Your task to perform on an android device: turn pop-ups off in chrome Image 0: 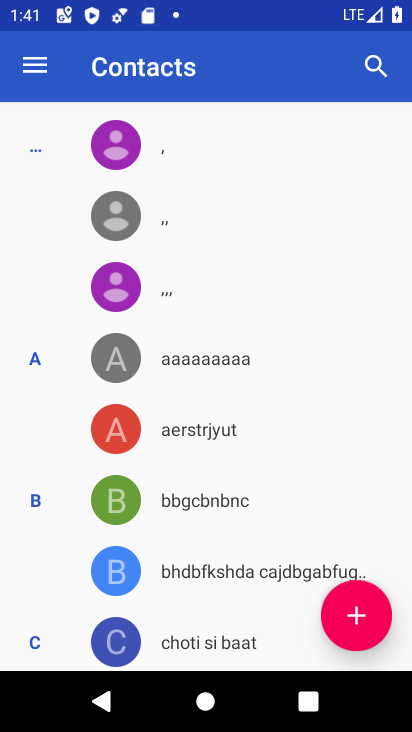
Step 0: press home button
Your task to perform on an android device: turn pop-ups off in chrome Image 1: 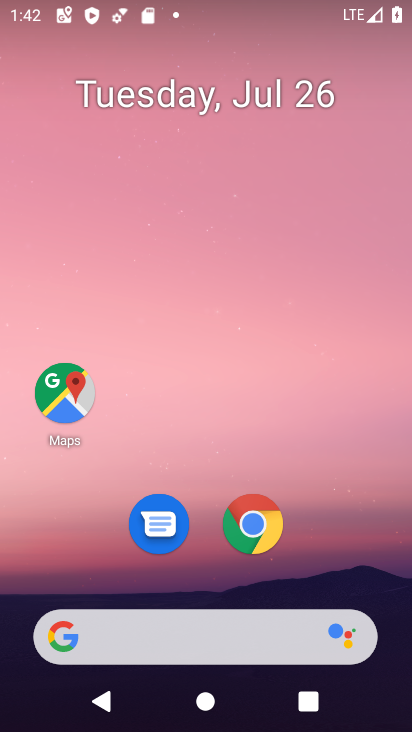
Step 1: click (264, 519)
Your task to perform on an android device: turn pop-ups off in chrome Image 2: 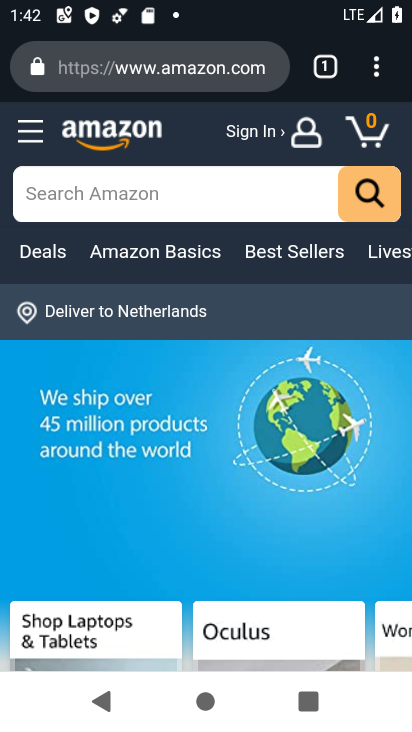
Step 2: click (378, 65)
Your task to perform on an android device: turn pop-ups off in chrome Image 3: 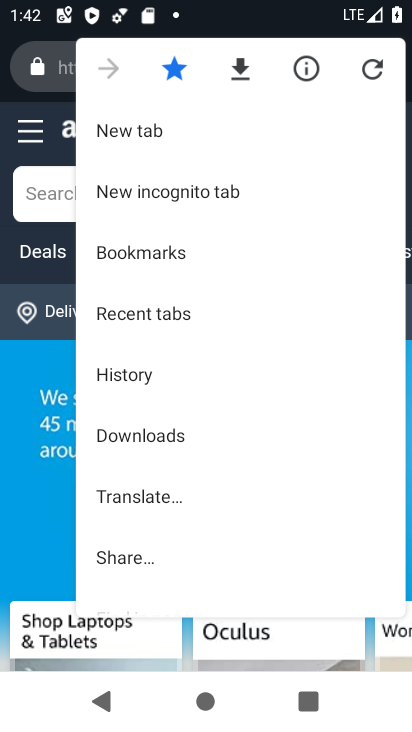
Step 3: drag from (228, 481) to (266, 104)
Your task to perform on an android device: turn pop-ups off in chrome Image 4: 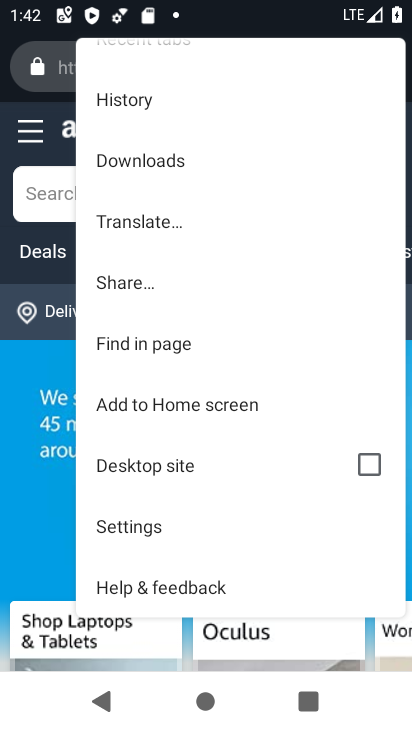
Step 4: drag from (205, 465) to (257, 258)
Your task to perform on an android device: turn pop-ups off in chrome Image 5: 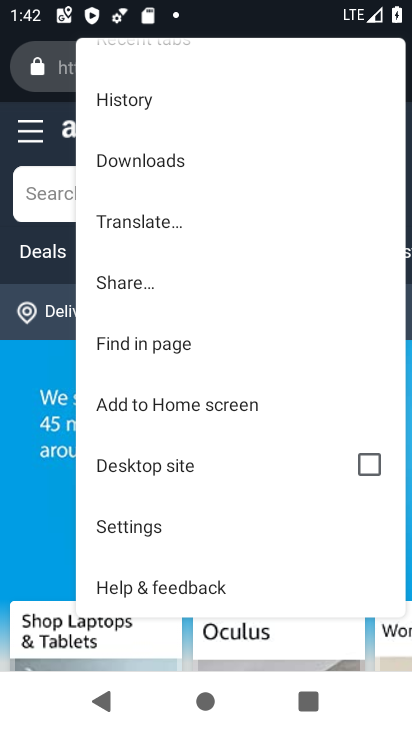
Step 5: click (156, 529)
Your task to perform on an android device: turn pop-ups off in chrome Image 6: 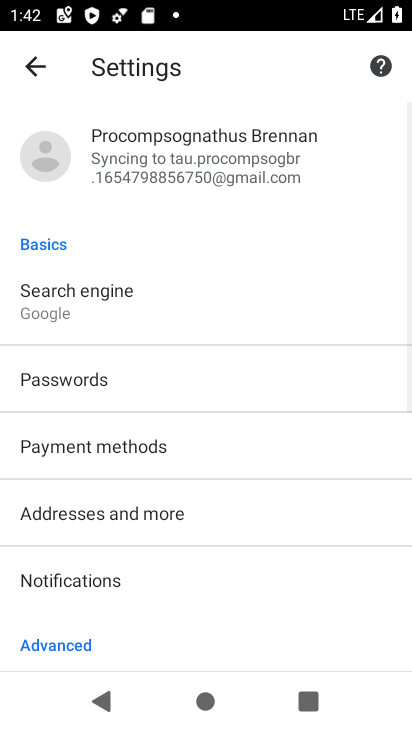
Step 6: drag from (202, 469) to (281, 136)
Your task to perform on an android device: turn pop-ups off in chrome Image 7: 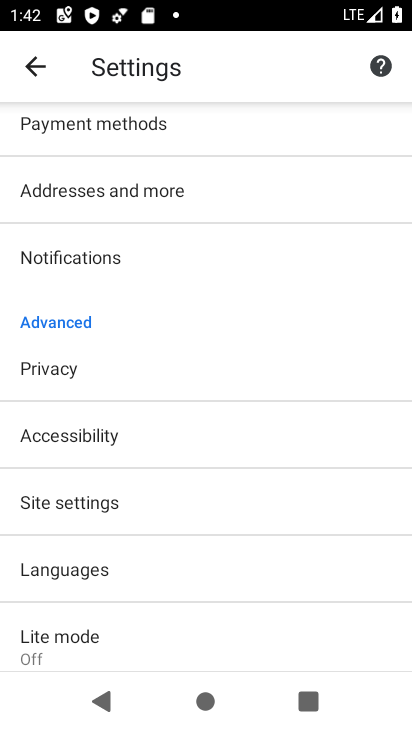
Step 7: click (103, 495)
Your task to perform on an android device: turn pop-ups off in chrome Image 8: 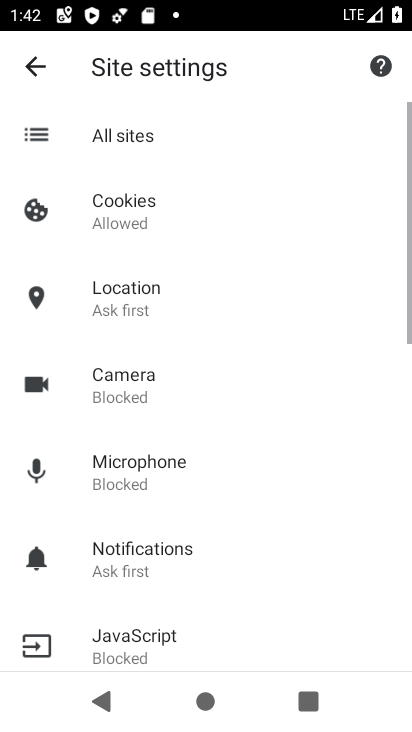
Step 8: drag from (256, 510) to (316, 287)
Your task to perform on an android device: turn pop-ups off in chrome Image 9: 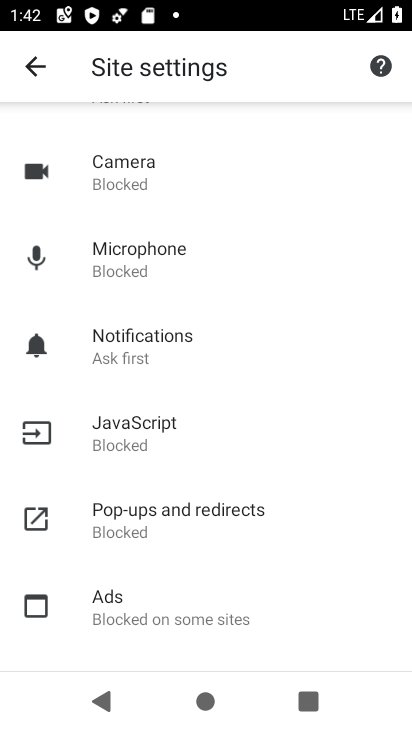
Step 9: click (194, 510)
Your task to perform on an android device: turn pop-ups off in chrome Image 10: 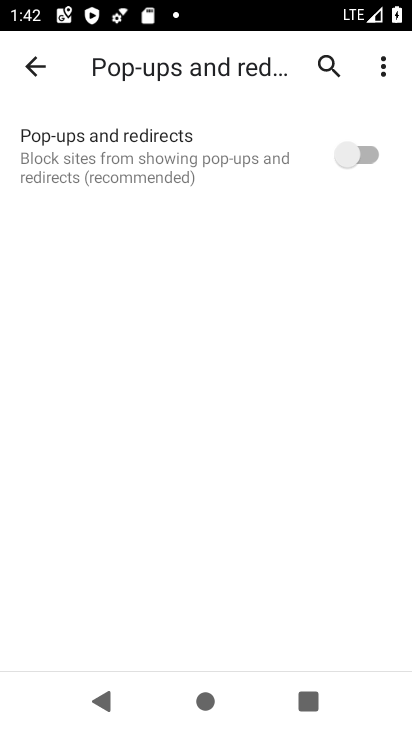
Step 10: task complete